Your task to perform on an android device: turn off translation in the chrome app Image 0: 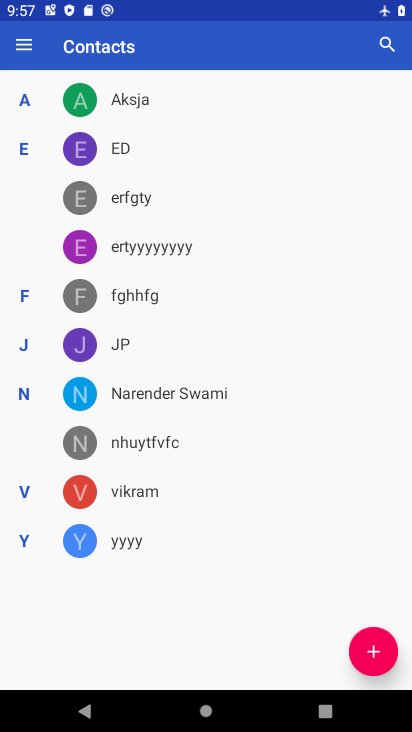
Step 0: press home button
Your task to perform on an android device: turn off translation in the chrome app Image 1: 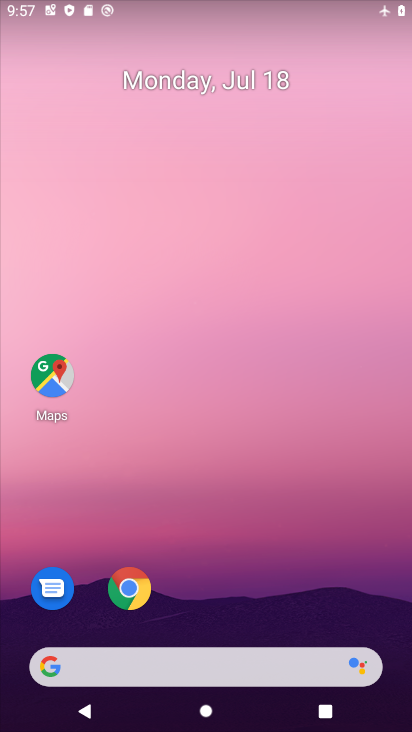
Step 1: click (126, 590)
Your task to perform on an android device: turn off translation in the chrome app Image 2: 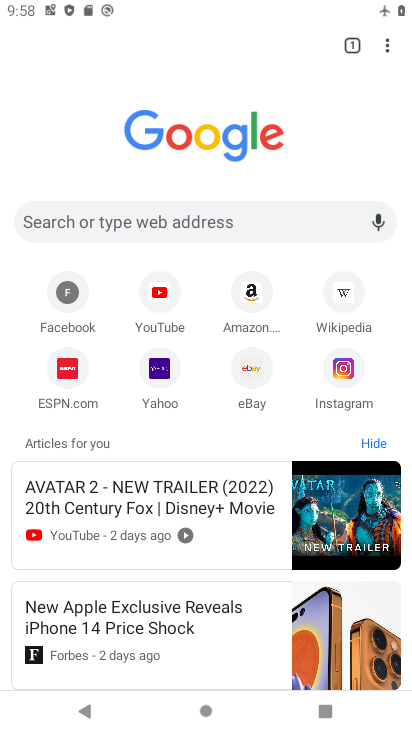
Step 2: click (386, 50)
Your task to perform on an android device: turn off translation in the chrome app Image 3: 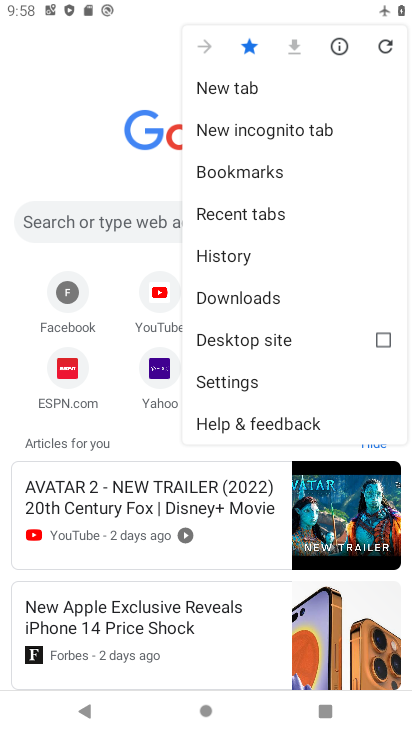
Step 3: click (225, 383)
Your task to perform on an android device: turn off translation in the chrome app Image 4: 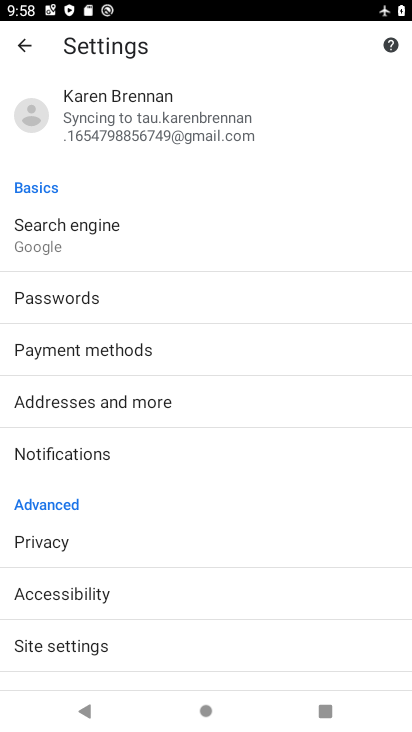
Step 4: drag from (116, 643) to (110, 348)
Your task to perform on an android device: turn off translation in the chrome app Image 5: 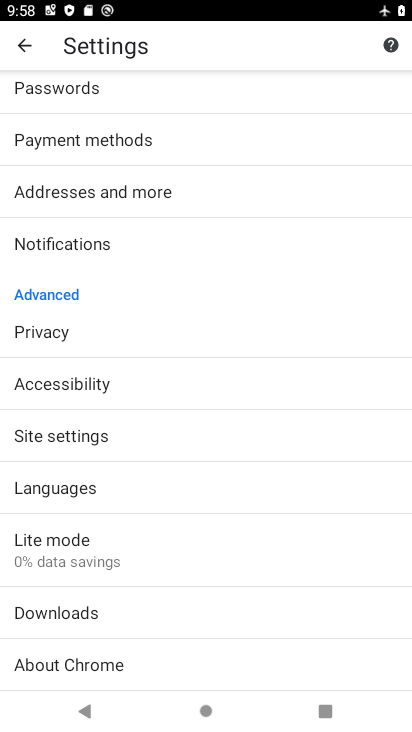
Step 5: click (60, 491)
Your task to perform on an android device: turn off translation in the chrome app Image 6: 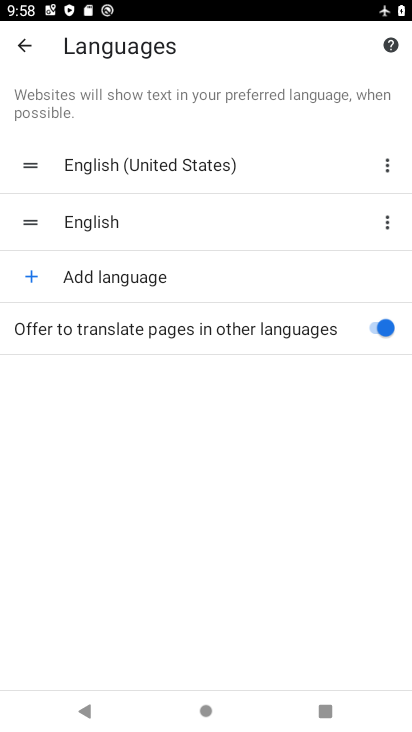
Step 6: click (374, 330)
Your task to perform on an android device: turn off translation in the chrome app Image 7: 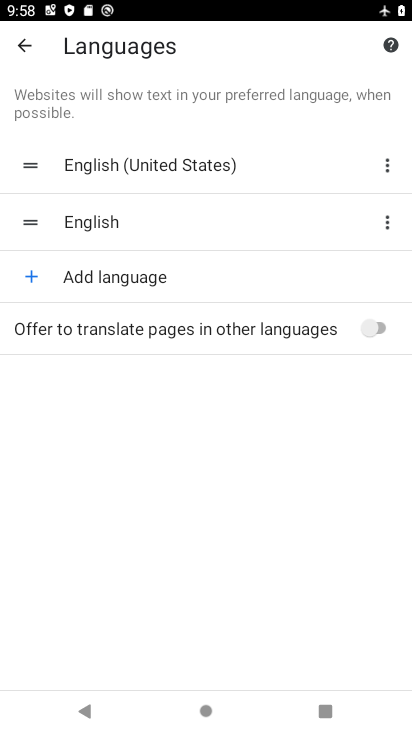
Step 7: task complete